Your task to perform on an android device: Google the capital of Peru Image 0: 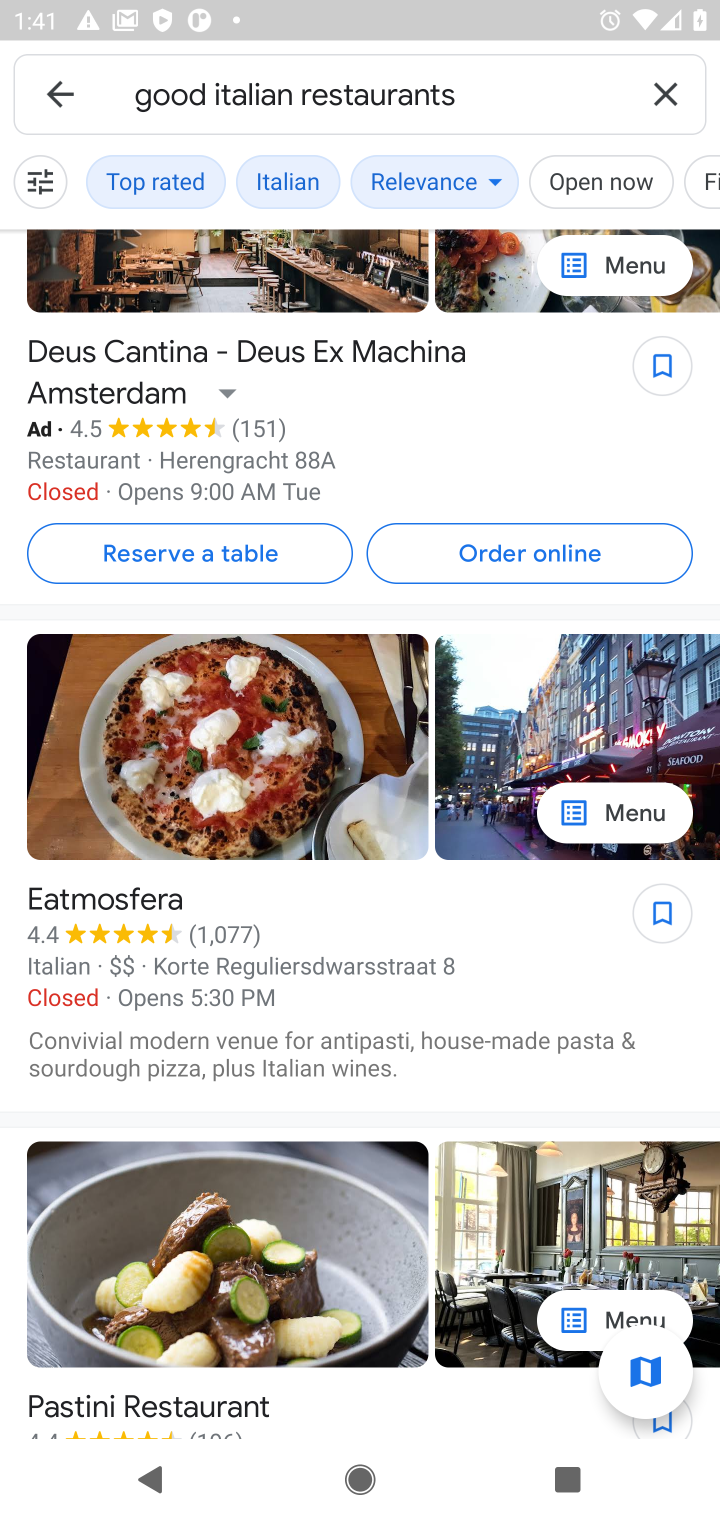
Step 0: press home button
Your task to perform on an android device: Google the capital of Peru Image 1: 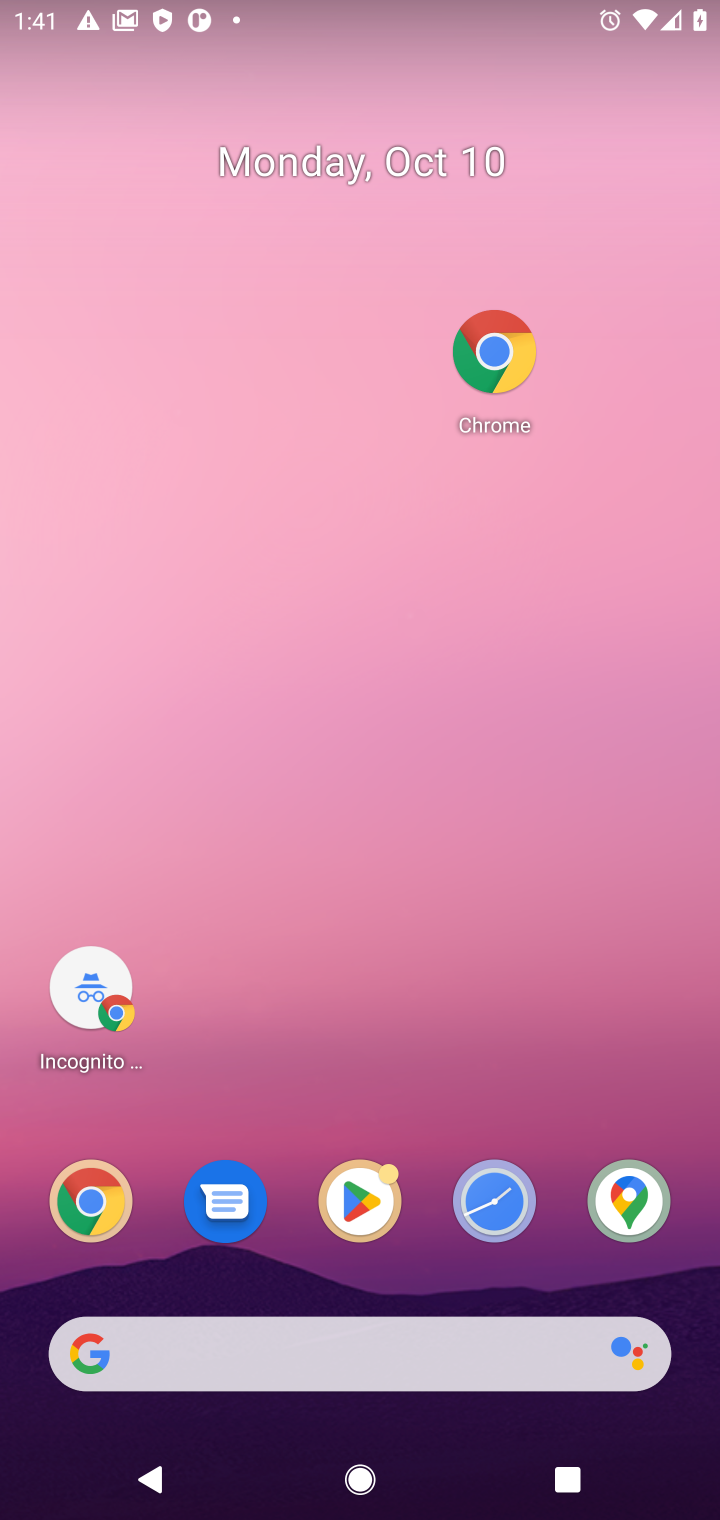
Step 1: click (254, 1351)
Your task to perform on an android device: Google the capital of Peru Image 2: 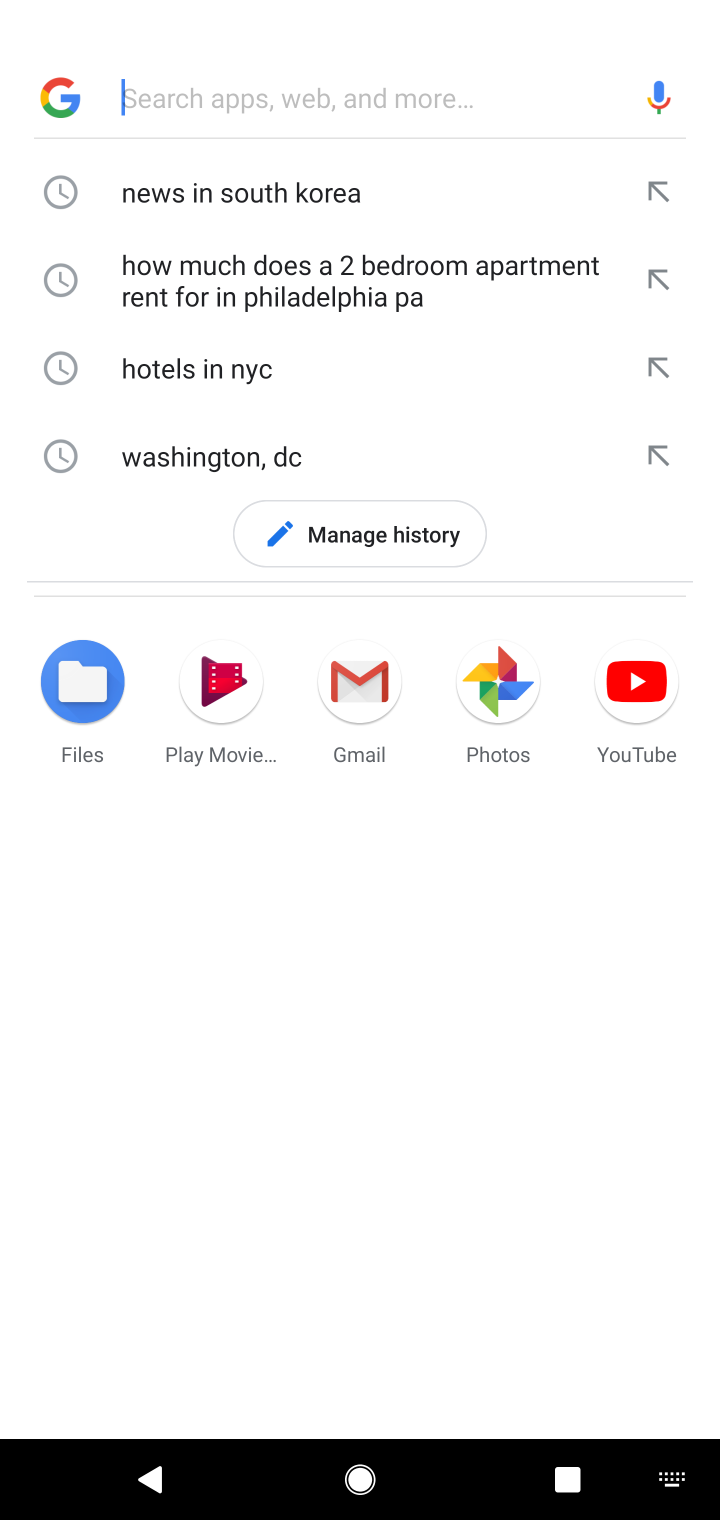
Step 2: click (273, 107)
Your task to perform on an android device: Google the capital of Peru Image 3: 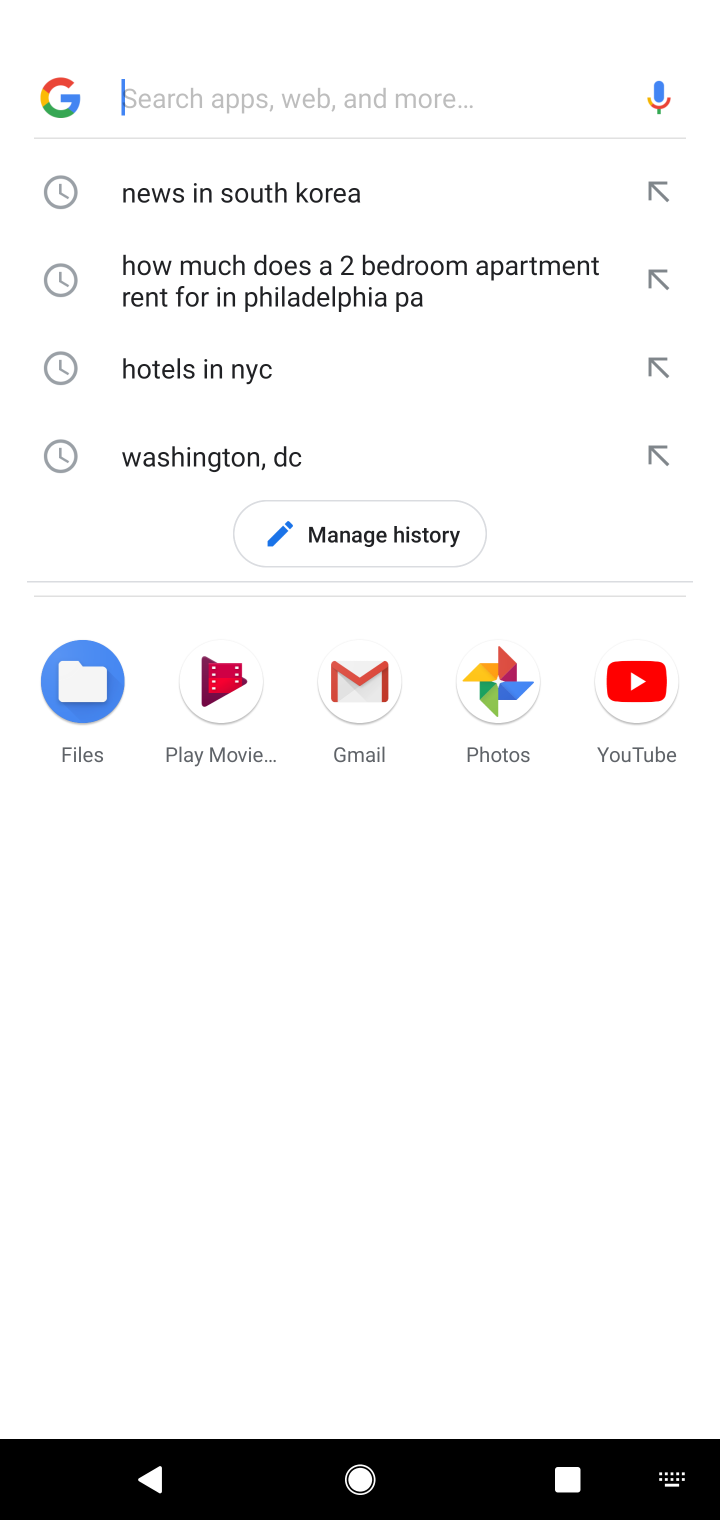
Step 3: type "capital of peru"
Your task to perform on an android device: Google the capital of Peru Image 4: 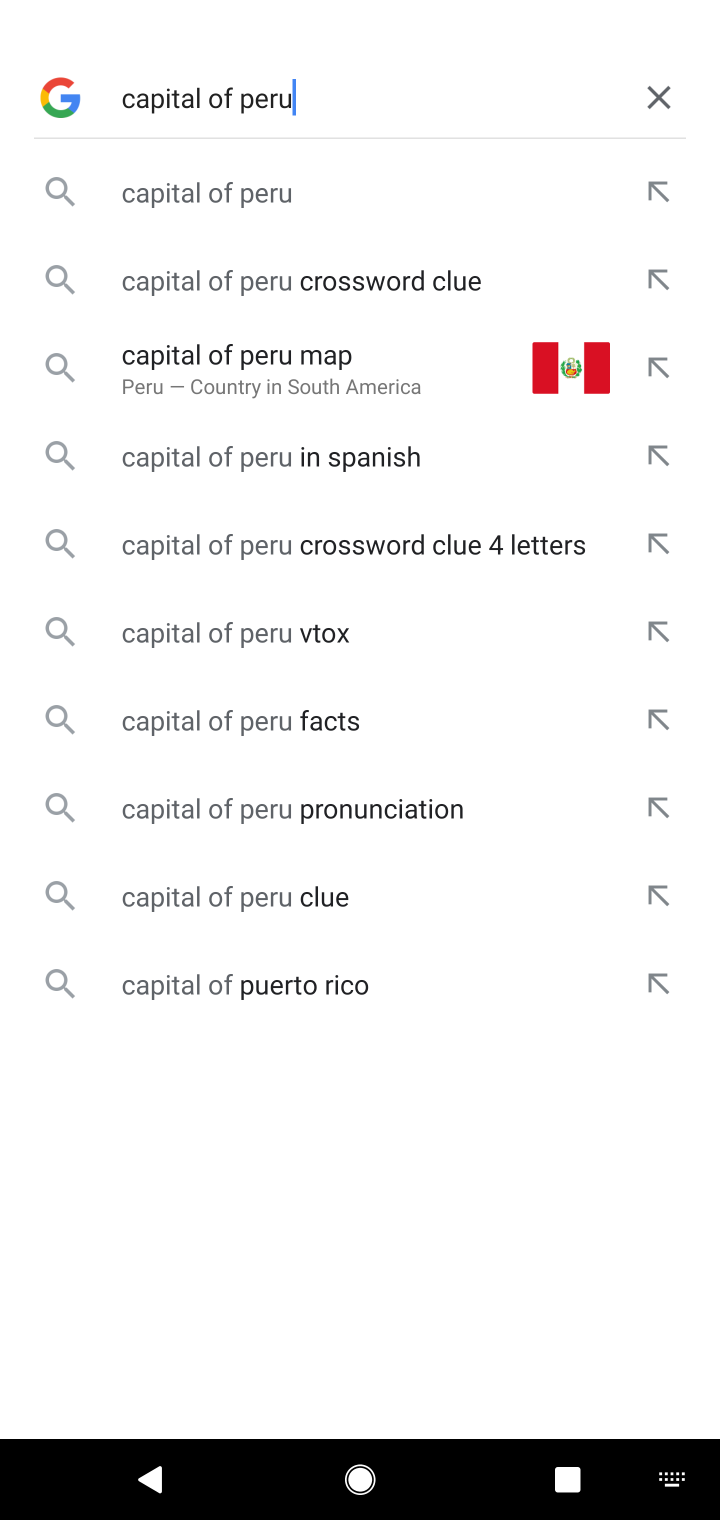
Step 4: click (227, 205)
Your task to perform on an android device: Google the capital of Peru Image 5: 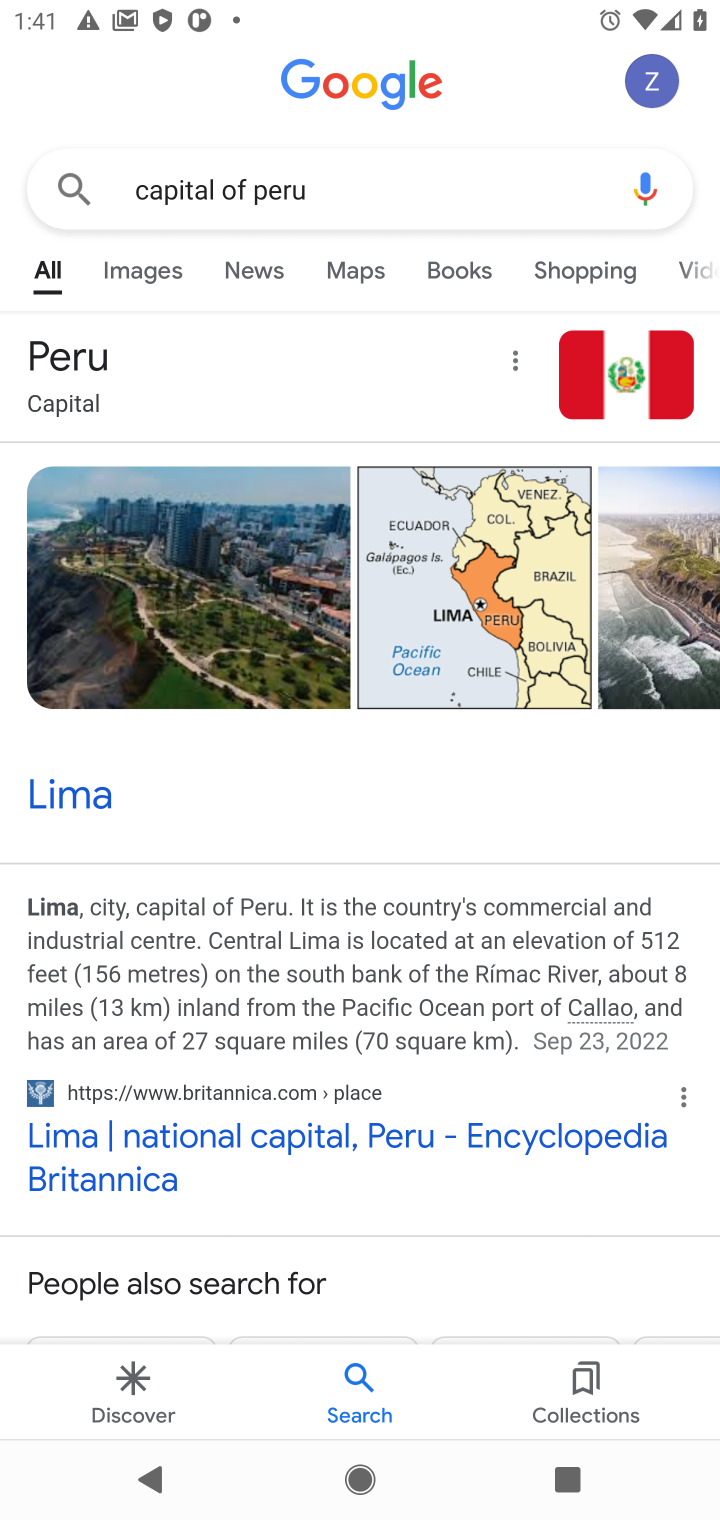
Step 5: click (61, 825)
Your task to perform on an android device: Google the capital of Peru Image 6: 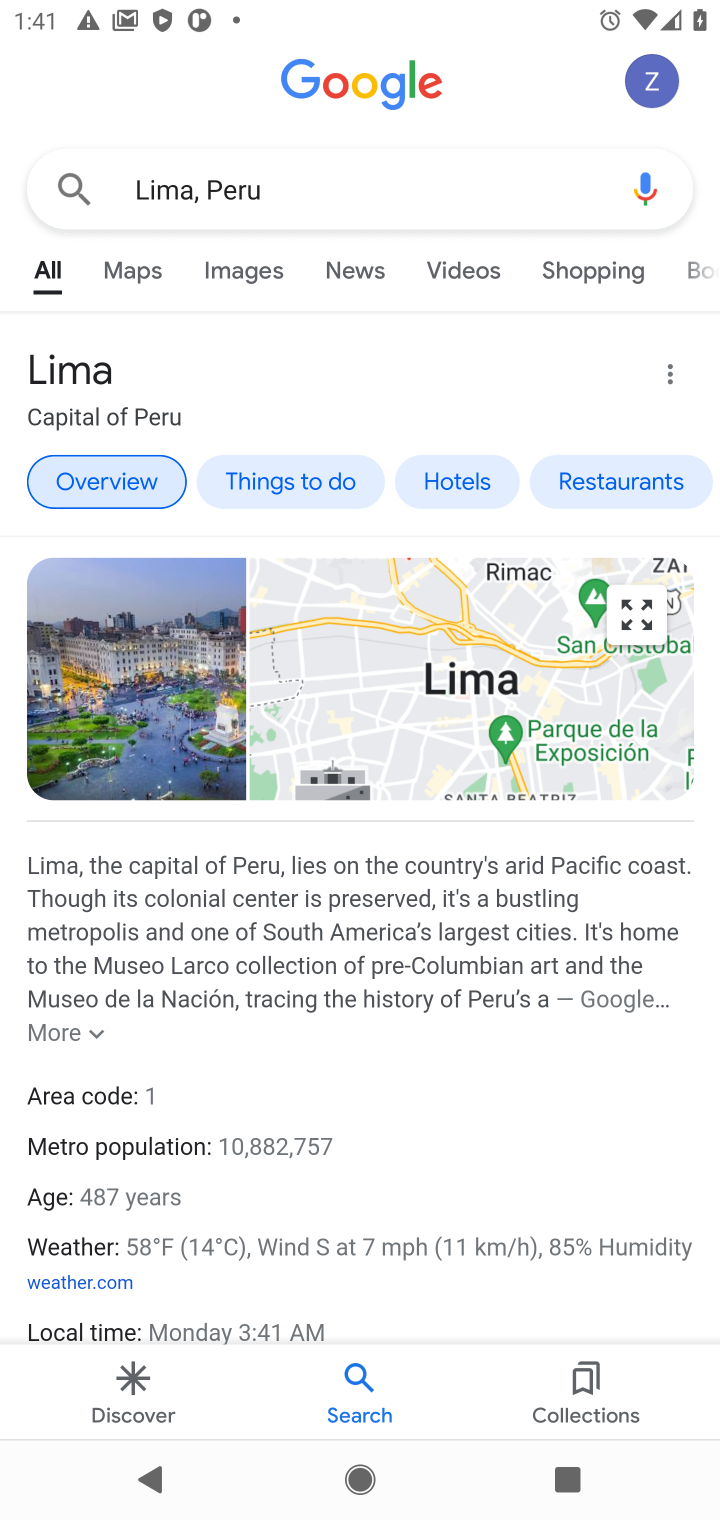
Step 6: task complete